Your task to perform on an android device: star an email in the gmail app Image 0: 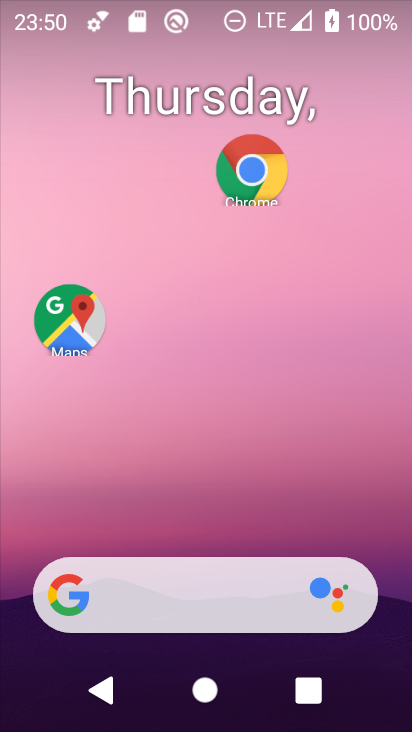
Step 0: drag from (179, 549) to (192, 280)
Your task to perform on an android device: star an email in the gmail app Image 1: 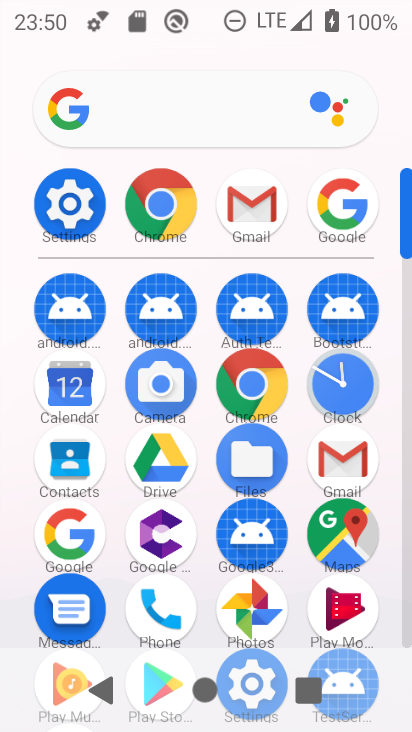
Step 1: click (243, 204)
Your task to perform on an android device: star an email in the gmail app Image 2: 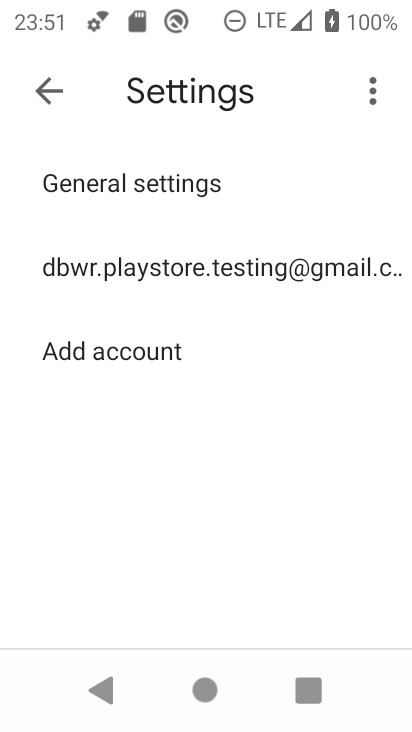
Step 2: click (52, 88)
Your task to perform on an android device: star an email in the gmail app Image 3: 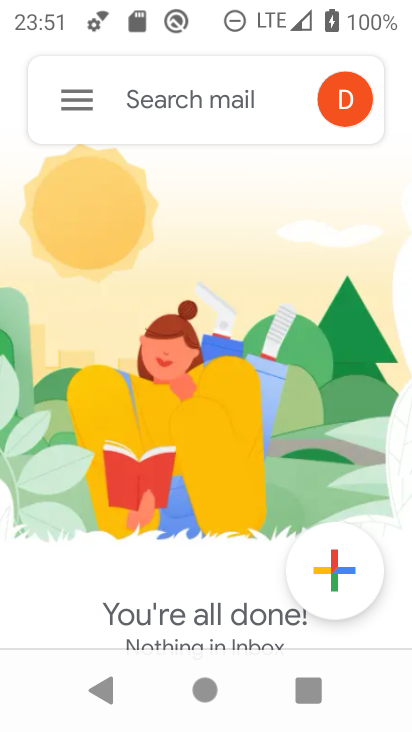
Step 3: task complete